Your task to perform on an android device: turn off notifications in google photos Image 0: 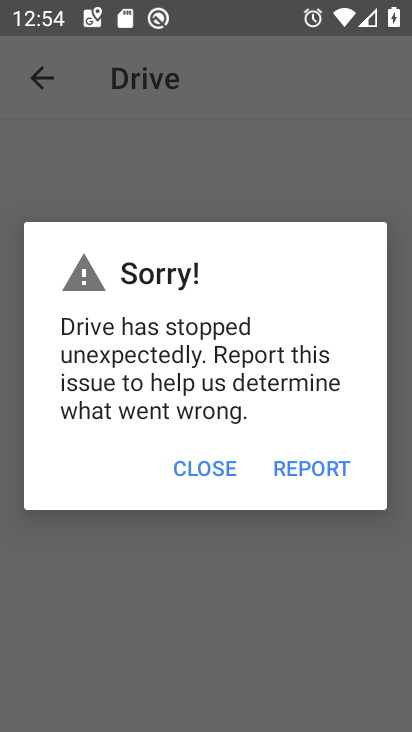
Step 0: press home button
Your task to perform on an android device: turn off notifications in google photos Image 1: 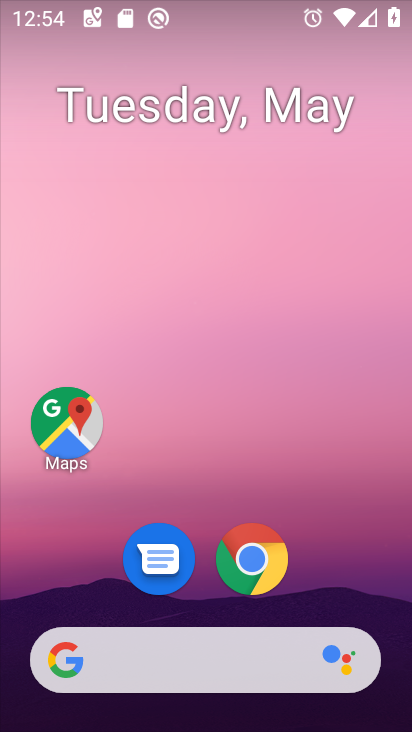
Step 1: drag from (366, 603) to (267, 69)
Your task to perform on an android device: turn off notifications in google photos Image 2: 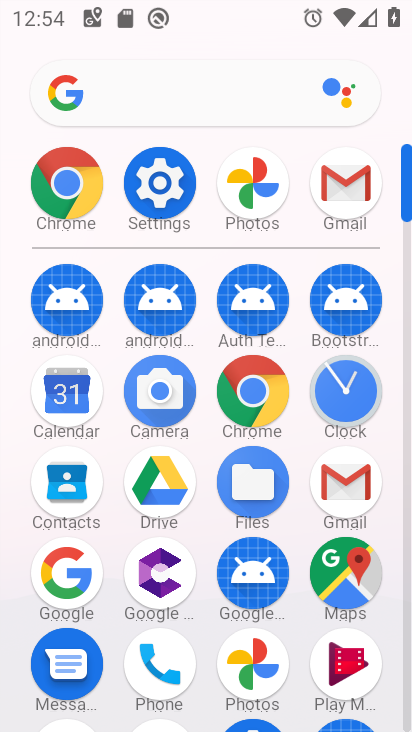
Step 2: click (259, 163)
Your task to perform on an android device: turn off notifications in google photos Image 3: 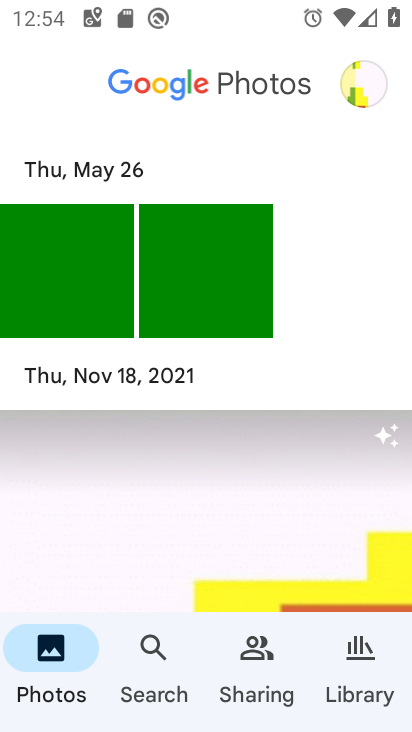
Step 3: click (376, 77)
Your task to perform on an android device: turn off notifications in google photos Image 4: 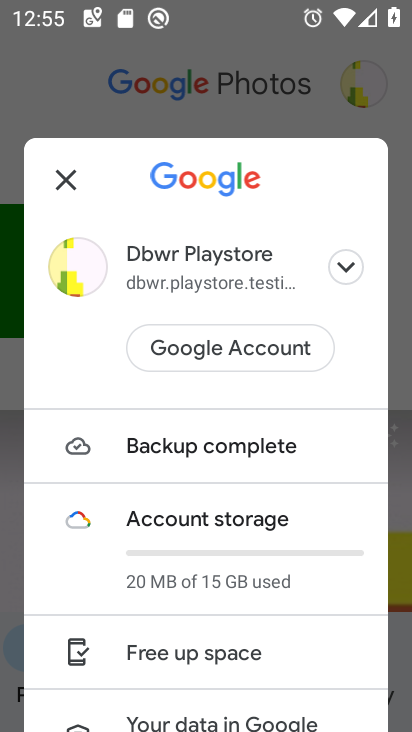
Step 4: drag from (273, 697) to (242, 250)
Your task to perform on an android device: turn off notifications in google photos Image 5: 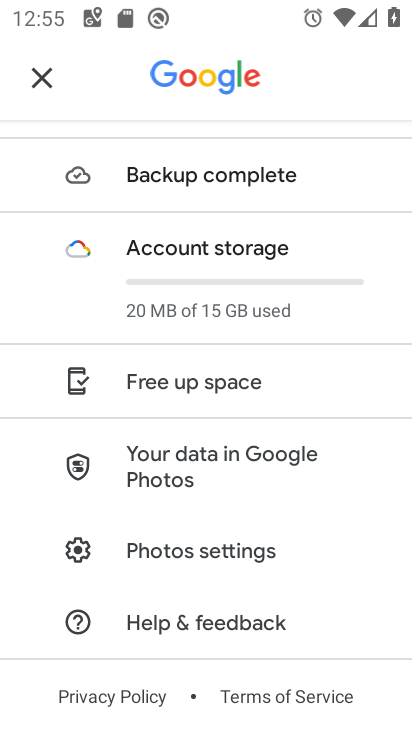
Step 5: click (223, 557)
Your task to perform on an android device: turn off notifications in google photos Image 6: 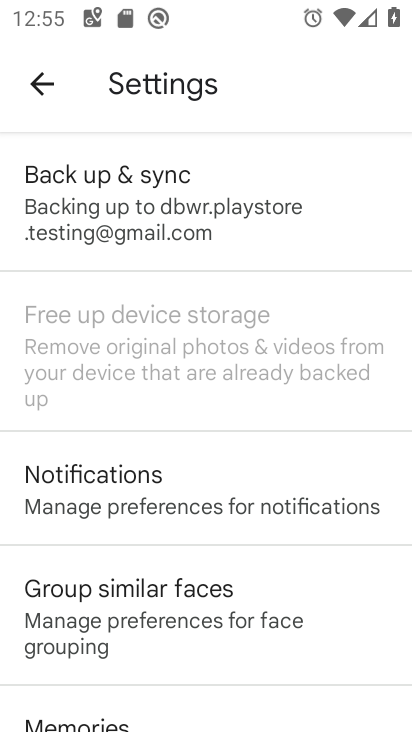
Step 6: click (214, 484)
Your task to perform on an android device: turn off notifications in google photos Image 7: 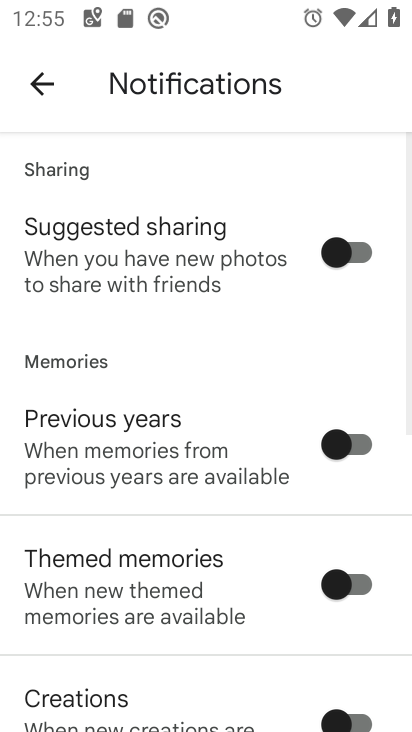
Step 7: drag from (244, 621) to (200, 93)
Your task to perform on an android device: turn off notifications in google photos Image 8: 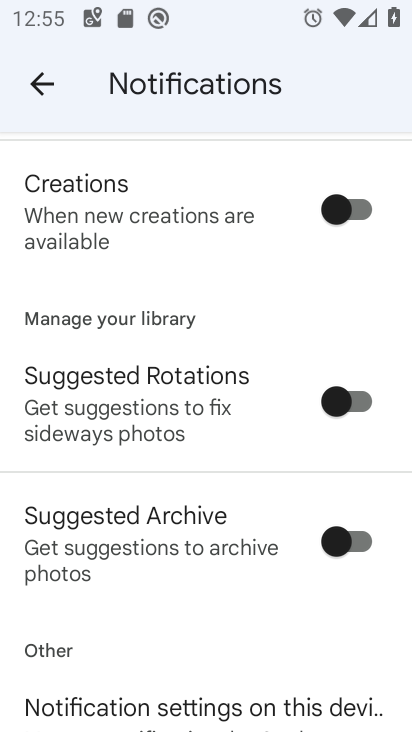
Step 8: drag from (201, 636) to (187, 182)
Your task to perform on an android device: turn off notifications in google photos Image 9: 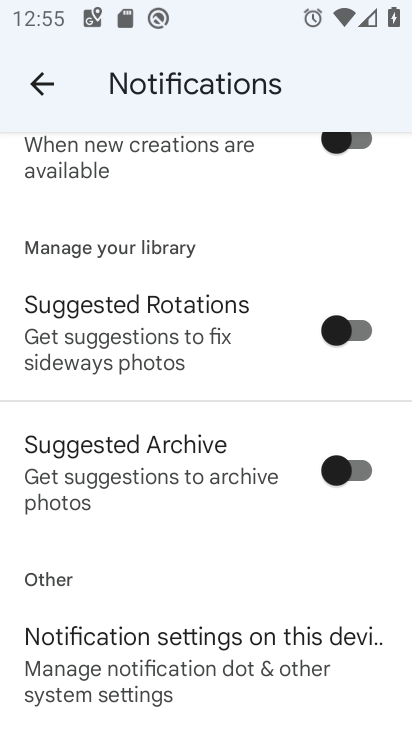
Step 9: click (203, 699)
Your task to perform on an android device: turn off notifications in google photos Image 10: 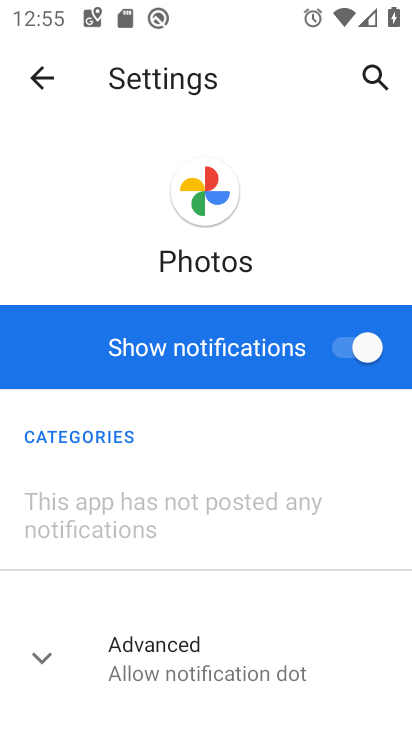
Step 10: click (355, 355)
Your task to perform on an android device: turn off notifications in google photos Image 11: 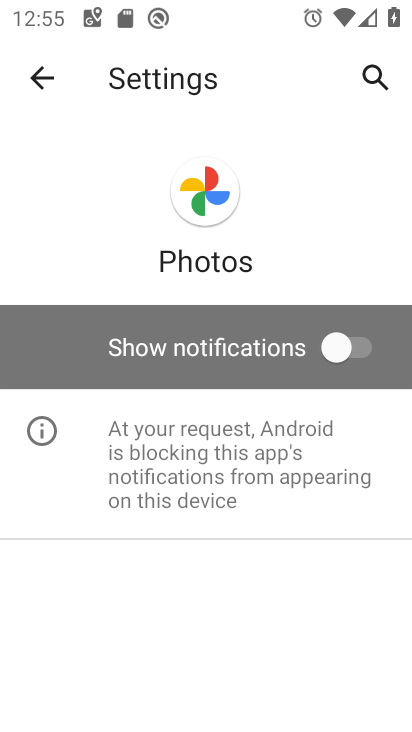
Step 11: task complete